Your task to perform on an android device: Open display settings Image 0: 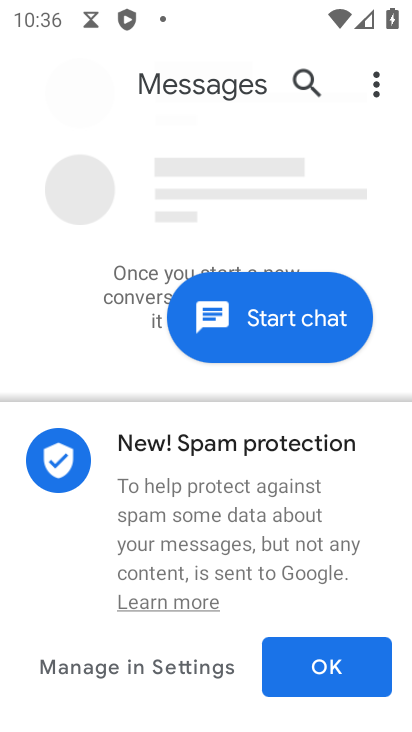
Step 0: press home button
Your task to perform on an android device: Open display settings Image 1: 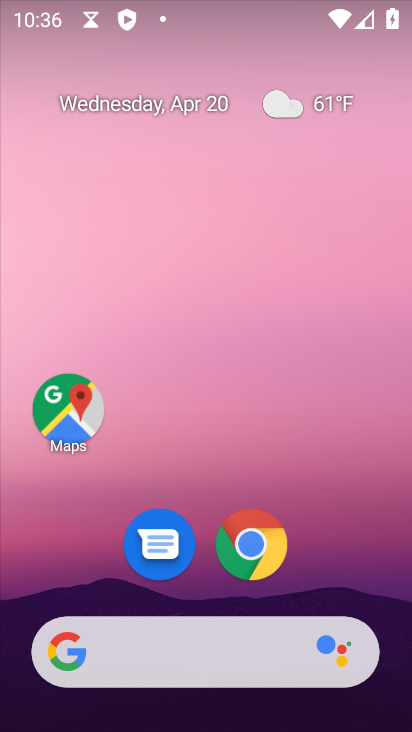
Step 1: drag from (144, 653) to (265, 84)
Your task to perform on an android device: Open display settings Image 2: 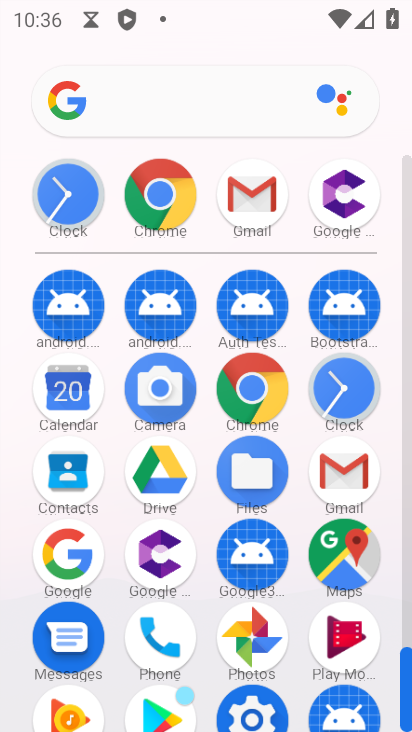
Step 2: drag from (197, 521) to (308, 252)
Your task to perform on an android device: Open display settings Image 3: 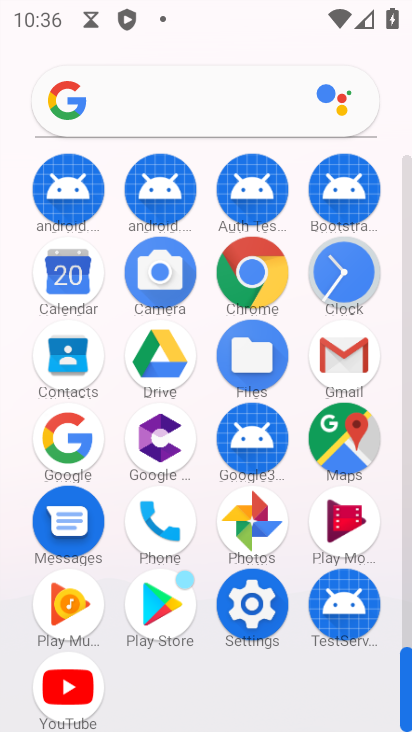
Step 3: click (265, 619)
Your task to perform on an android device: Open display settings Image 4: 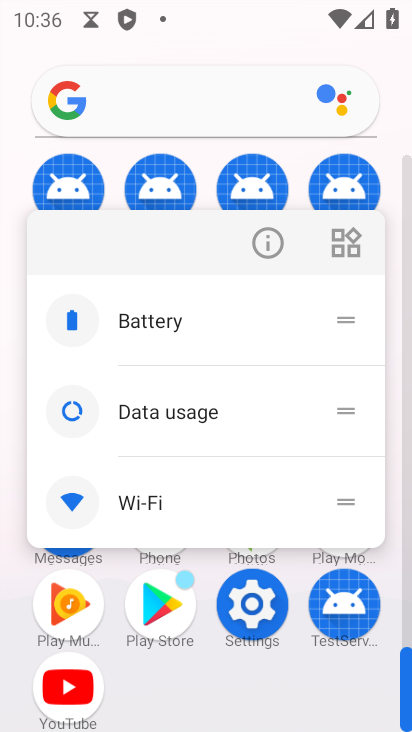
Step 4: click (256, 600)
Your task to perform on an android device: Open display settings Image 5: 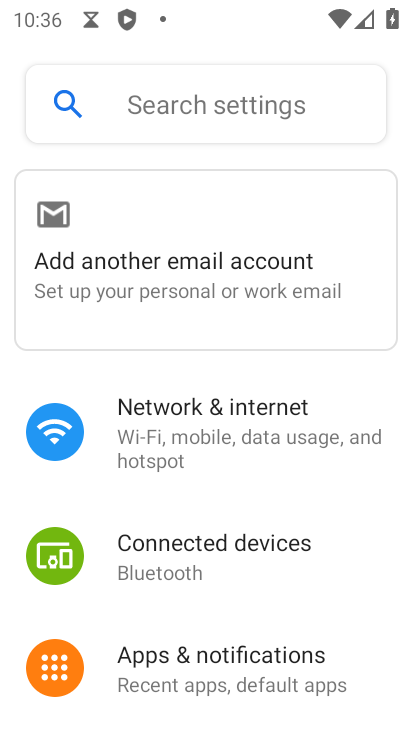
Step 5: drag from (211, 615) to (346, 231)
Your task to perform on an android device: Open display settings Image 6: 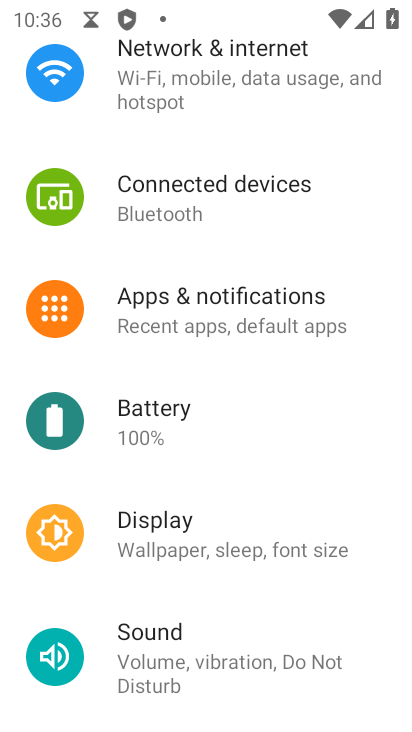
Step 6: click (170, 529)
Your task to perform on an android device: Open display settings Image 7: 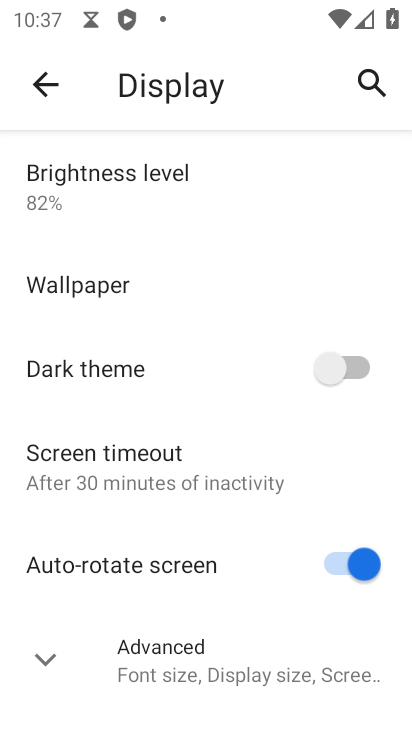
Step 7: task complete